Your task to perform on an android device: Open Youtube and go to the subscriptions tab Image 0: 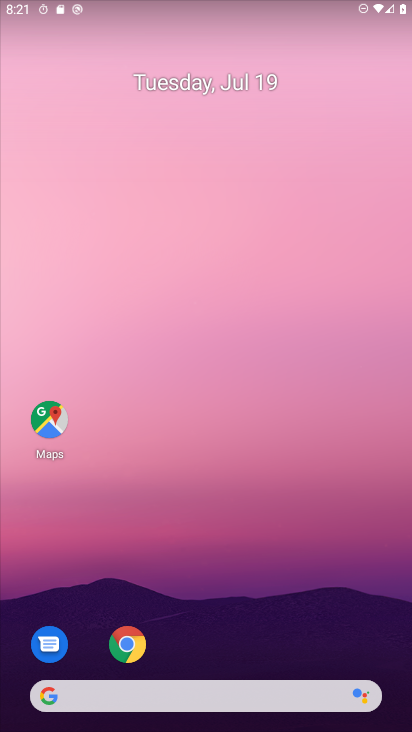
Step 0: drag from (85, 546) to (299, 160)
Your task to perform on an android device: Open Youtube and go to the subscriptions tab Image 1: 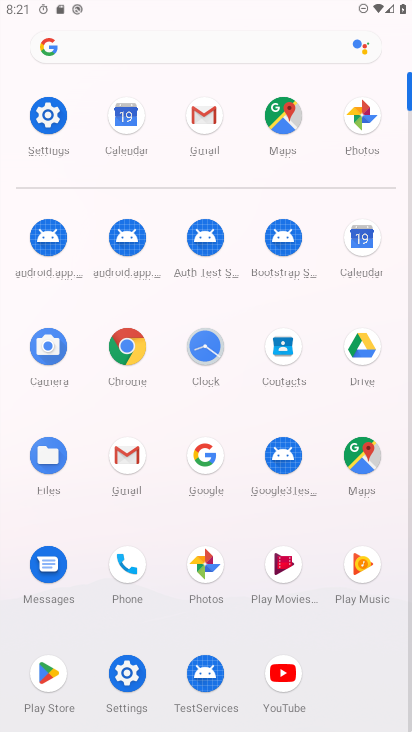
Step 1: click (278, 681)
Your task to perform on an android device: Open Youtube and go to the subscriptions tab Image 2: 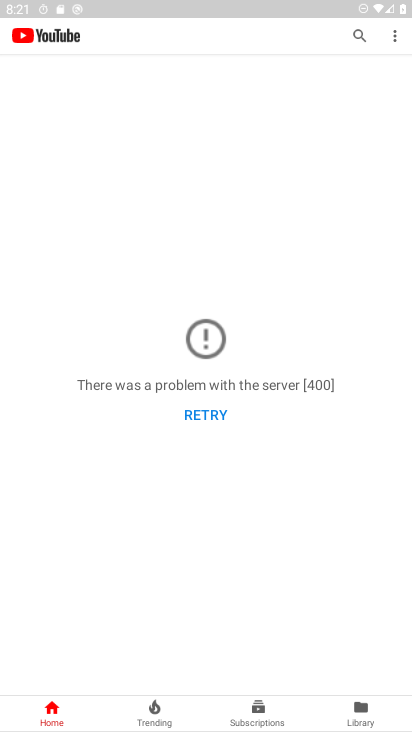
Step 2: click (279, 716)
Your task to perform on an android device: Open Youtube and go to the subscriptions tab Image 3: 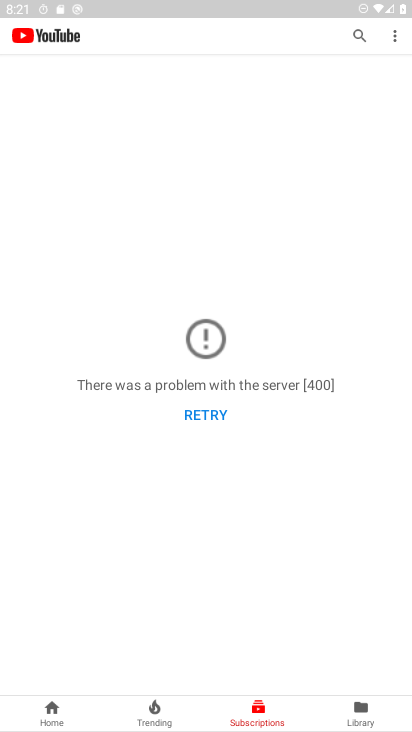
Step 3: task complete